Your task to perform on an android device: change text size in settings app Image 0: 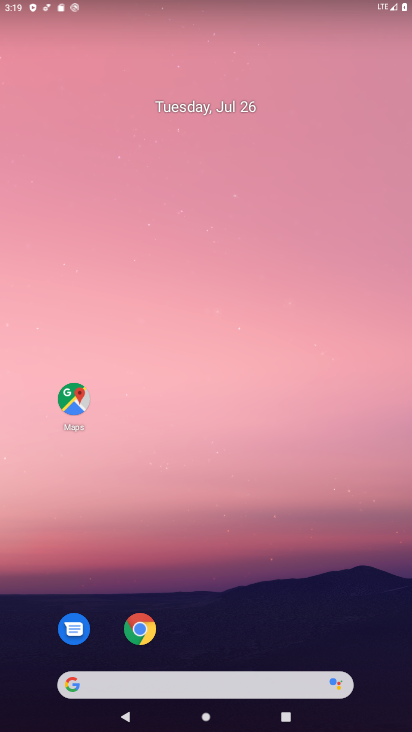
Step 0: drag from (233, 614) to (233, 101)
Your task to perform on an android device: change text size in settings app Image 1: 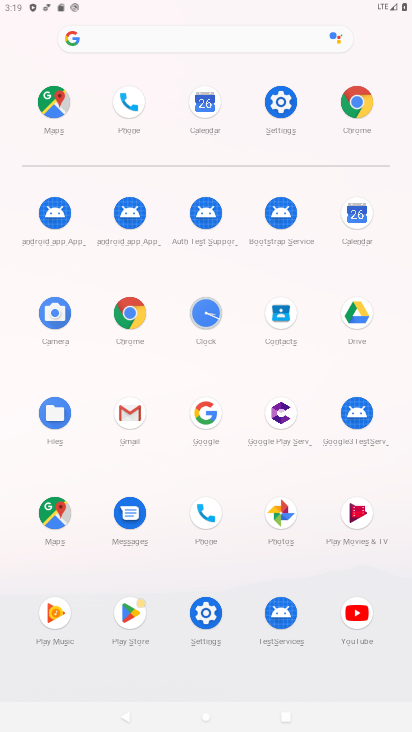
Step 1: click (278, 103)
Your task to perform on an android device: change text size in settings app Image 2: 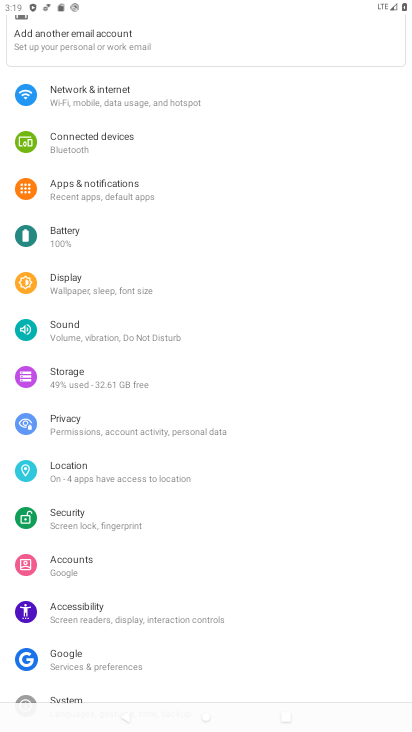
Step 2: click (121, 290)
Your task to perform on an android device: change text size in settings app Image 3: 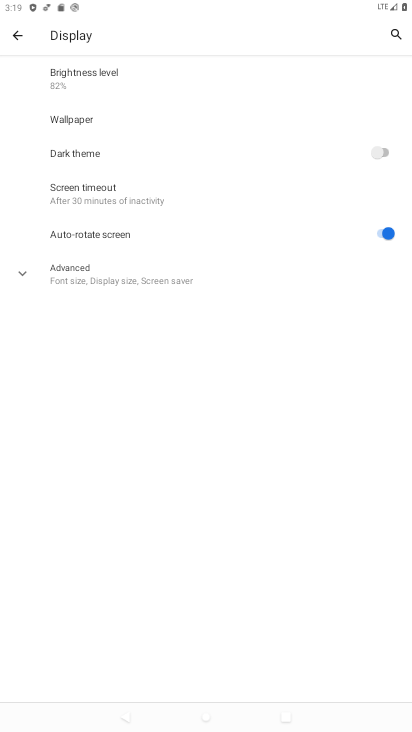
Step 3: click (118, 274)
Your task to perform on an android device: change text size in settings app Image 4: 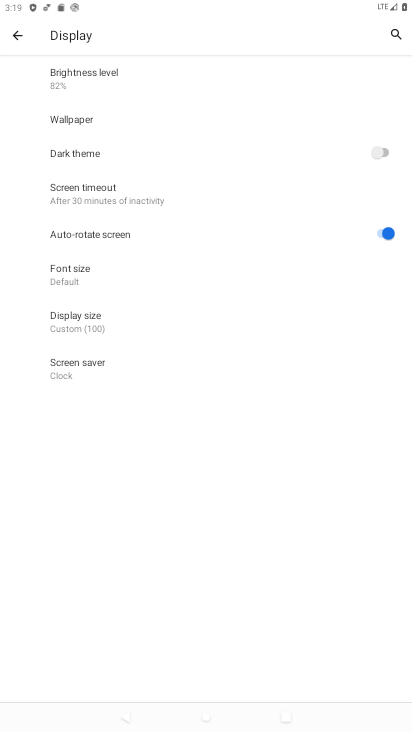
Step 4: click (70, 268)
Your task to perform on an android device: change text size in settings app Image 5: 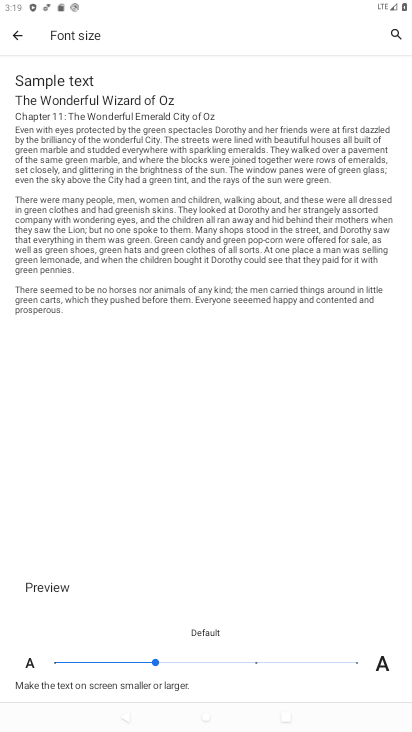
Step 5: click (355, 660)
Your task to perform on an android device: change text size in settings app Image 6: 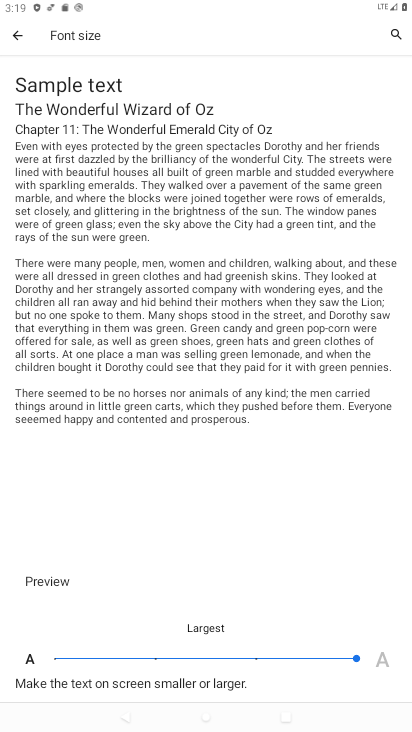
Step 6: task complete